Your task to perform on an android device: Open Wikipedia Image 0: 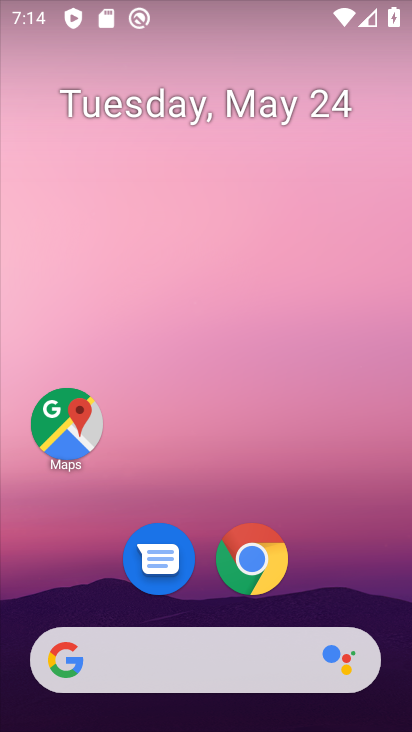
Step 0: click (252, 573)
Your task to perform on an android device: Open Wikipedia Image 1: 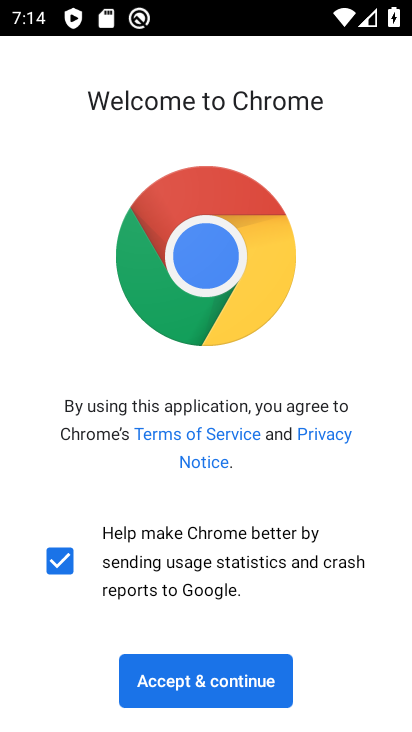
Step 1: click (154, 707)
Your task to perform on an android device: Open Wikipedia Image 2: 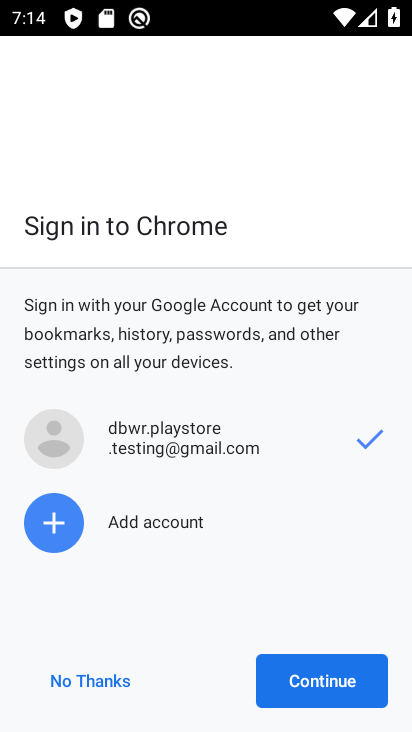
Step 2: click (285, 685)
Your task to perform on an android device: Open Wikipedia Image 3: 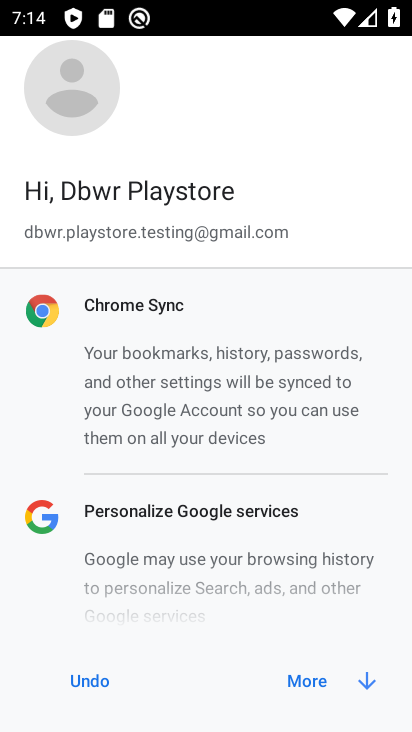
Step 3: click (301, 672)
Your task to perform on an android device: Open Wikipedia Image 4: 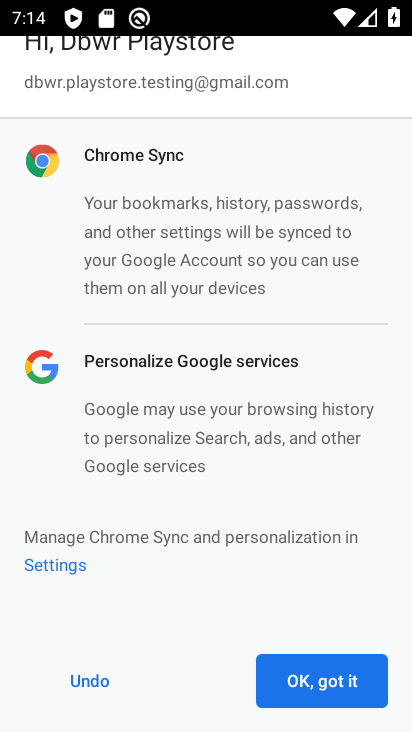
Step 4: click (302, 680)
Your task to perform on an android device: Open Wikipedia Image 5: 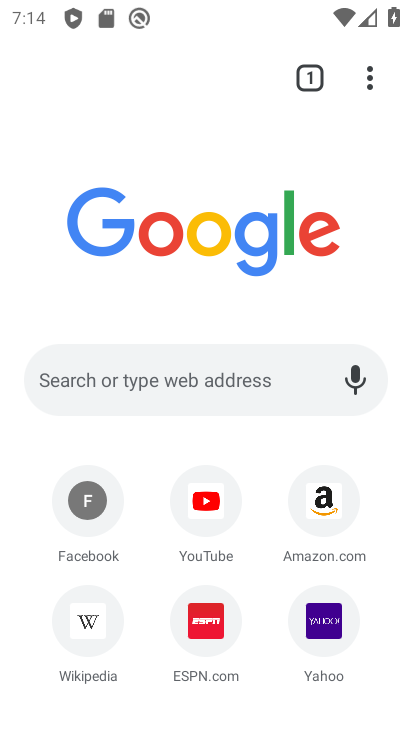
Step 5: click (72, 631)
Your task to perform on an android device: Open Wikipedia Image 6: 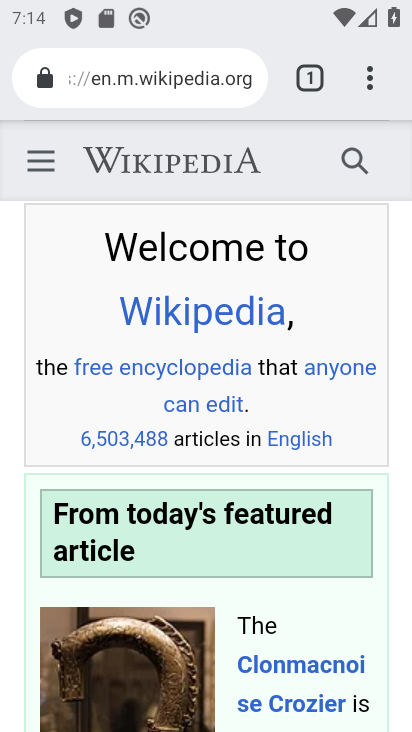
Step 6: task complete